Your task to perform on an android device: turn on notifications settings in the gmail app Image 0: 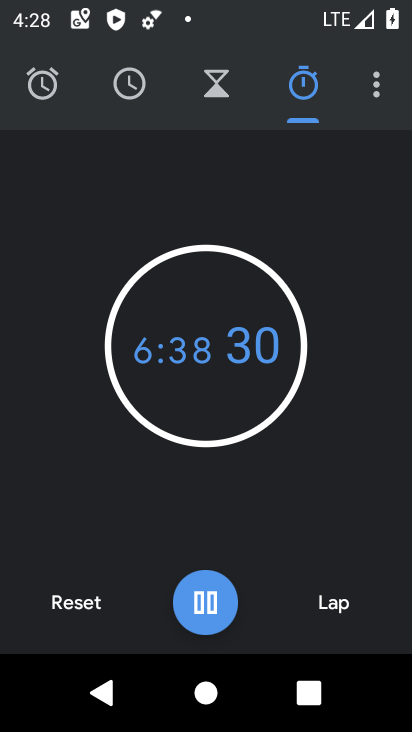
Step 0: press home button
Your task to perform on an android device: turn on notifications settings in the gmail app Image 1: 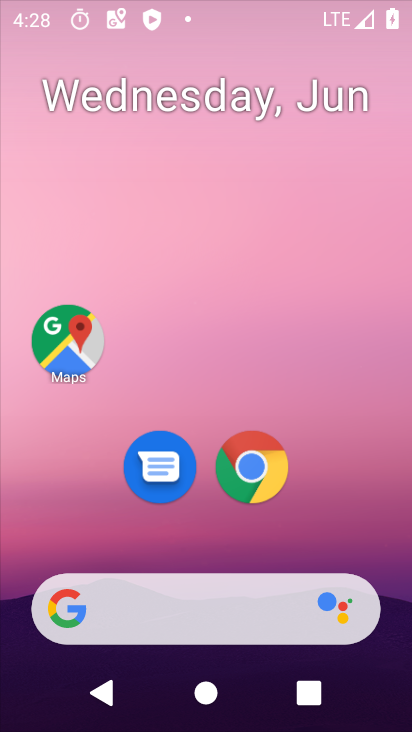
Step 1: drag from (331, 369) to (291, 70)
Your task to perform on an android device: turn on notifications settings in the gmail app Image 2: 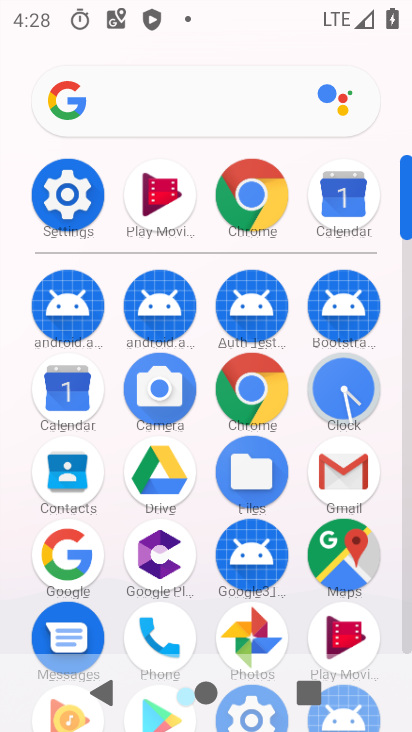
Step 2: click (338, 463)
Your task to perform on an android device: turn on notifications settings in the gmail app Image 3: 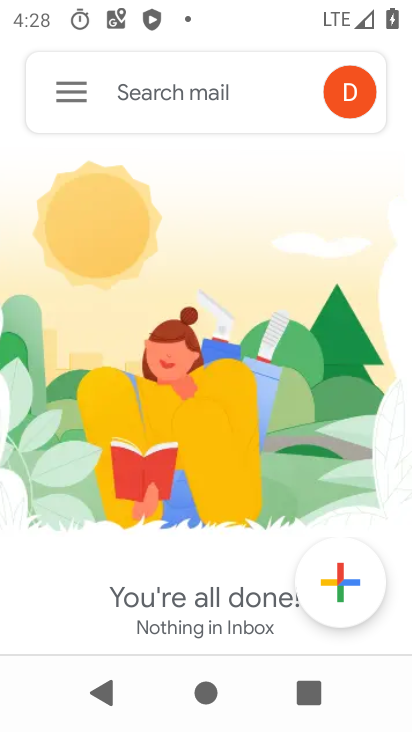
Step 3: click (78, 98)
Your task to perform on an android device: turn on notifications settings in the gmail app Image 4: 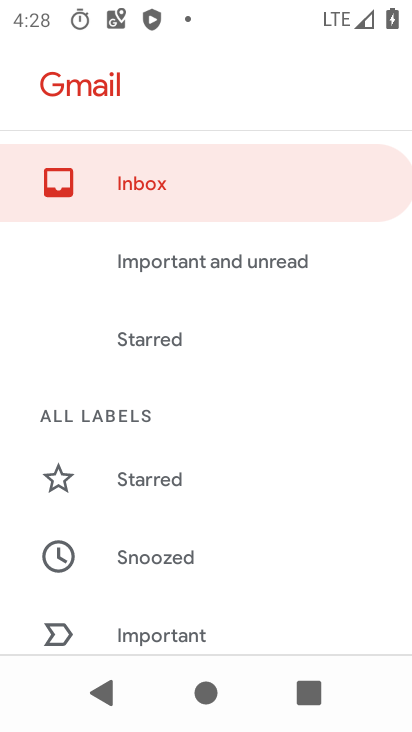
Step 4: drag from (261, 557) to (235, 1)
Your task to perform on an android device: turn on notifications settings in the gmail app Image 5: 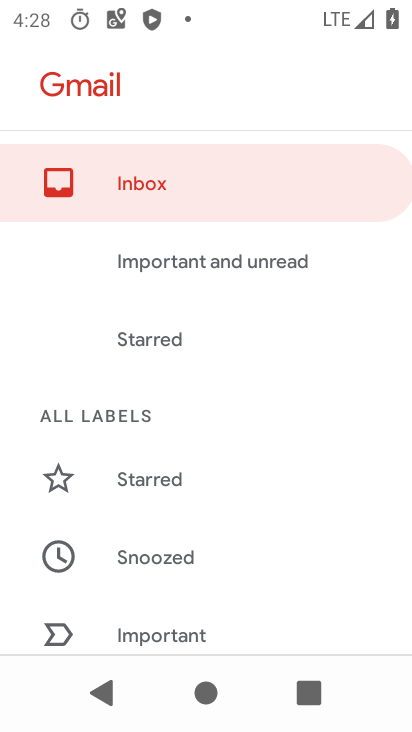
Step 5: drag from (216, 560) to (223, 140)
Your task to perform on an android device: turn on notifications settings in the gmail app Image 6: 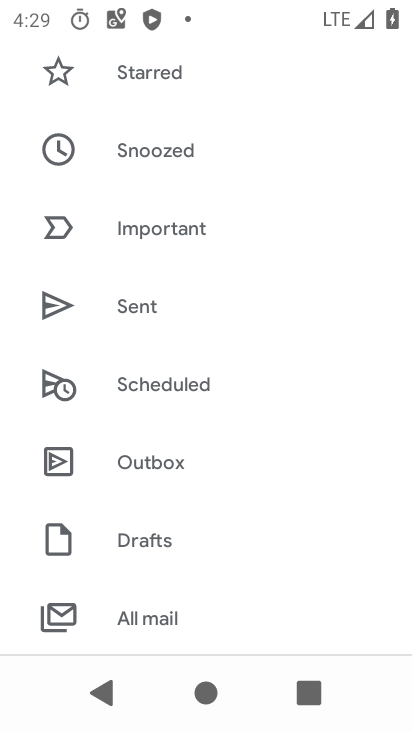
Step 6: drag from (246, 467) to (238, 28)
Your task to perform on an android device: turn on notifications settings in the gmail app Image 7: 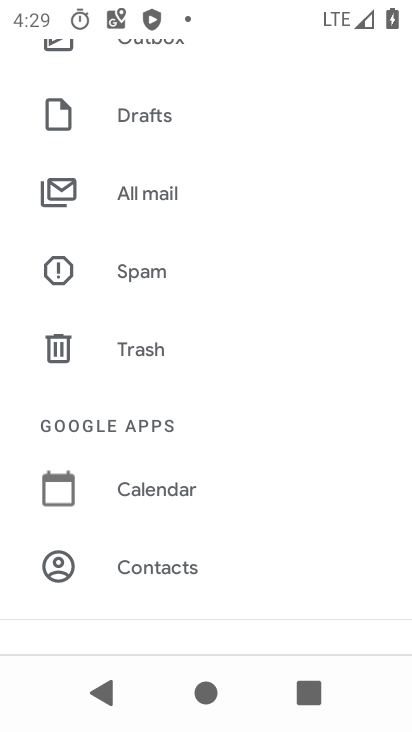
Step 7: drag from (266, 495) to (271, 189)
Your task to perform on an android device: turn on notifications settings in the gmail app Image 8: 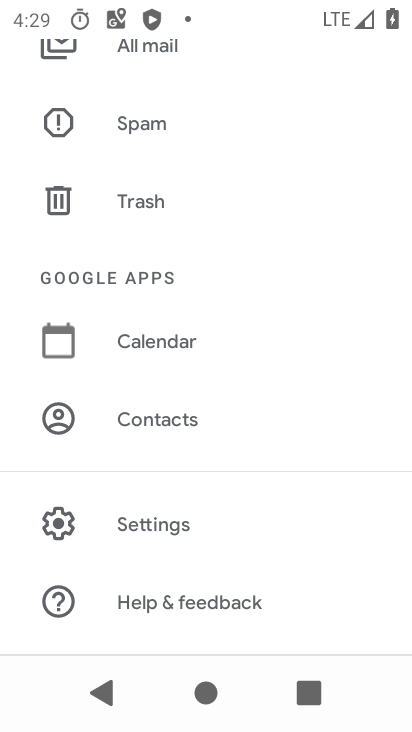
Step 8: click (228, 514)
Your task to perform on an android device: turn on notifications settings in the gmail app Image 9: 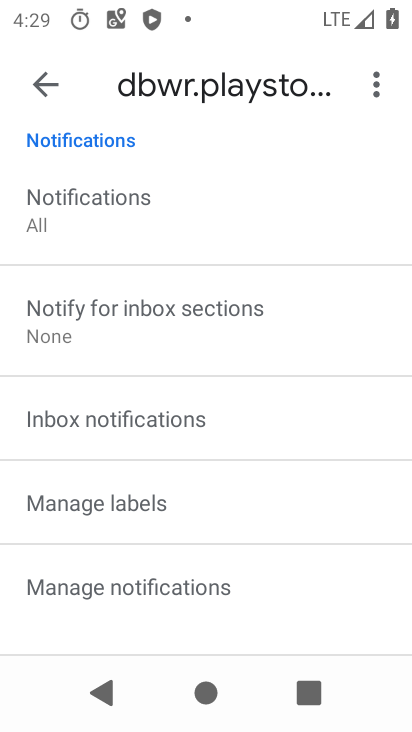
Step 9: click (162, 228)
Your task to perform on an android device: turn on notifications settings in the gmail app Image 10: 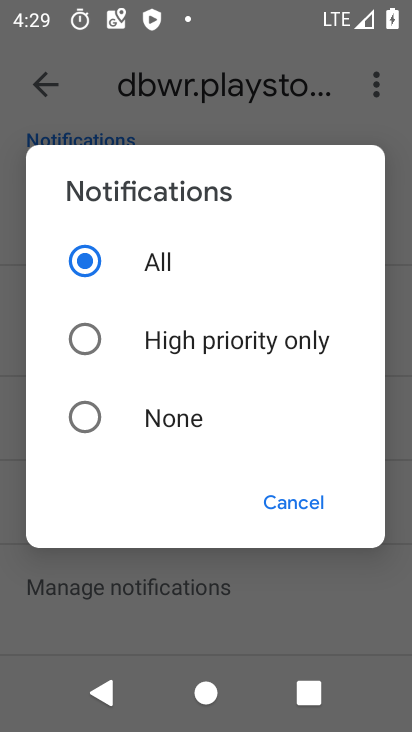
Step 10: task complete